Your task to perform on an android device: open sync settings in chrome Image 0: 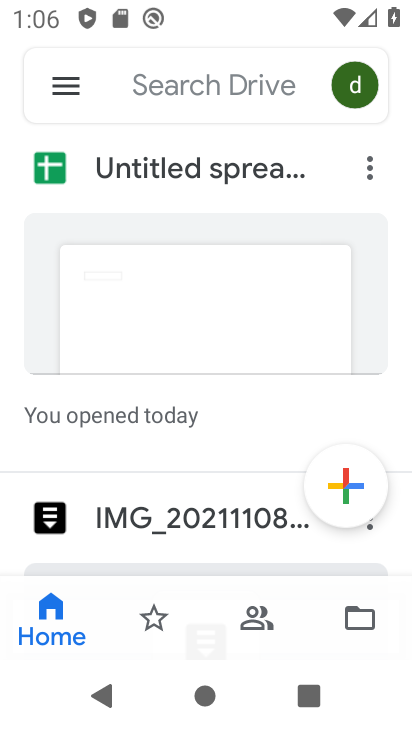
Step 0: press home button
Your task to perform on an android device: open sync settings in chrome Image 1: 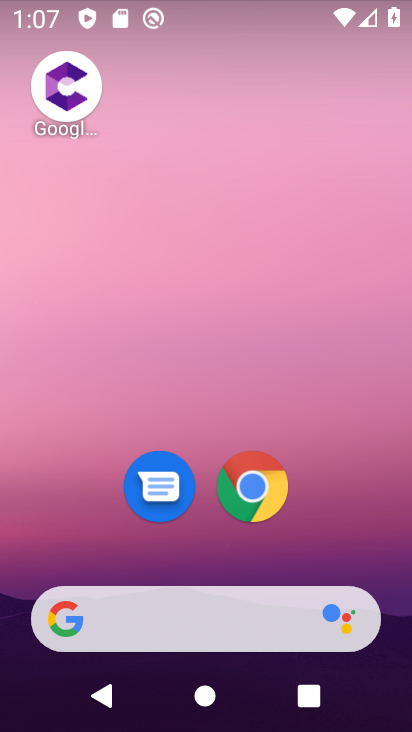
Step 1: click (266, 502)
Your task to perform on an android device: open sync settings in chrome Image 2: 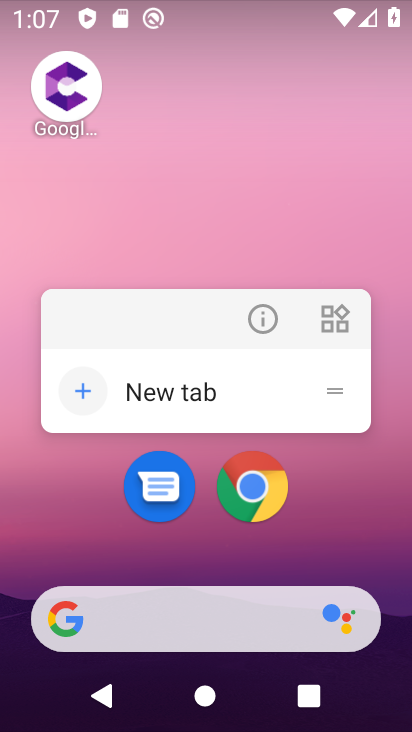
Step 2: click (253, 494)
Your task to perform on an android device: open sync settings in chrome Image 3: 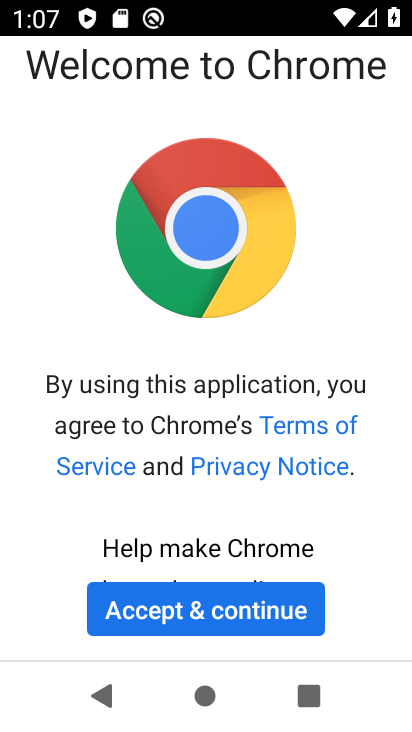
Step 3: click (207, 609)
Your task to perform on an android device: open sync settings in chrome Image 4: 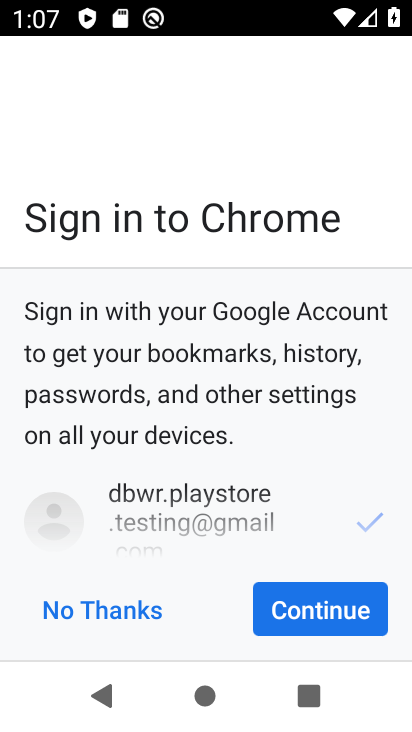
Step 4: click (294, 606)
Your task to perform on an android device: open sync settings in chrome Image 5: 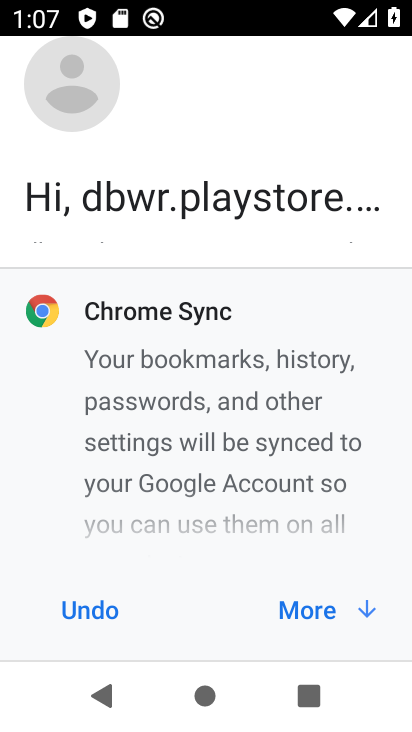
Step 5: click (294, 606)
Your task to perform on an android device: open sync settings in chrome Image 6: 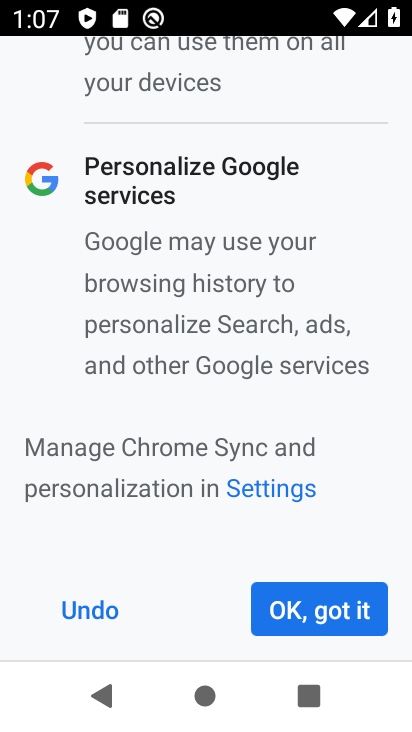
Step 6: click (294, 607)
Your task to perform on an android device: open sync settings in chrome Image 7: 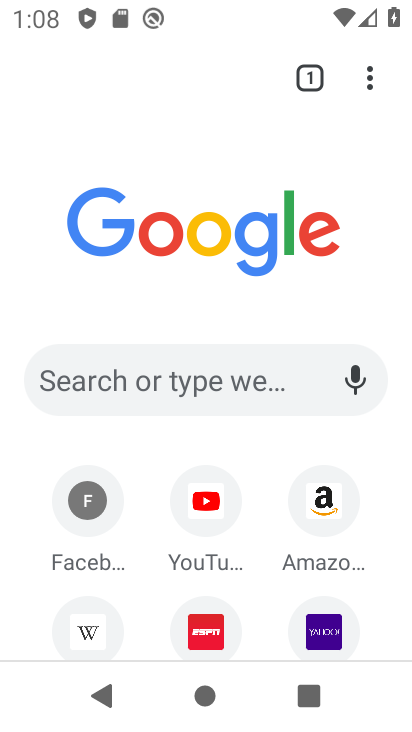
Step 7: click (371, 80)
Your task to perform on an android device: open sync settings in chrome Image 8: 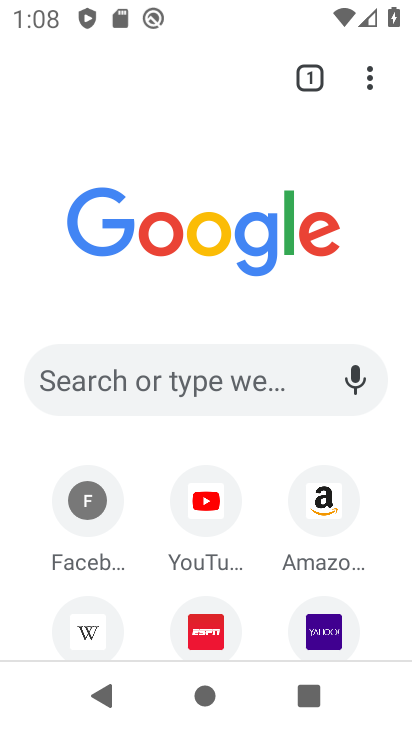
Step 8: click (371, 89)
Your task to perform on an android device: open sync settings in chrome Image 9: 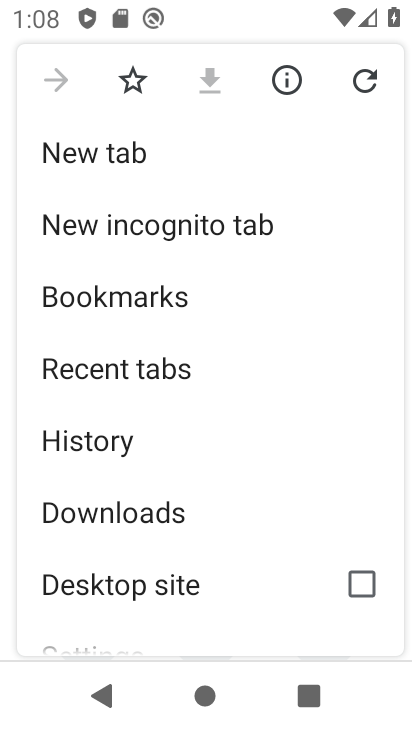
Step 9: drag from (133, 560) to (130, 211)
Your task to perform on an android device: open sync settings in chrome Image 10: 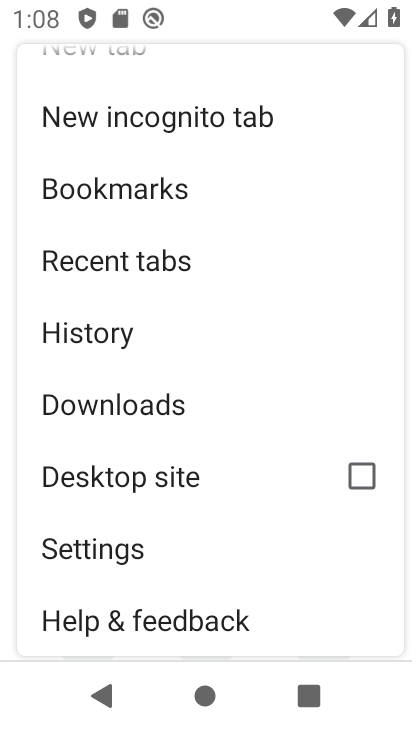
Step 10: click (104, 547)
Your task to perform on an android device: open sync settings in chrome Image 11: 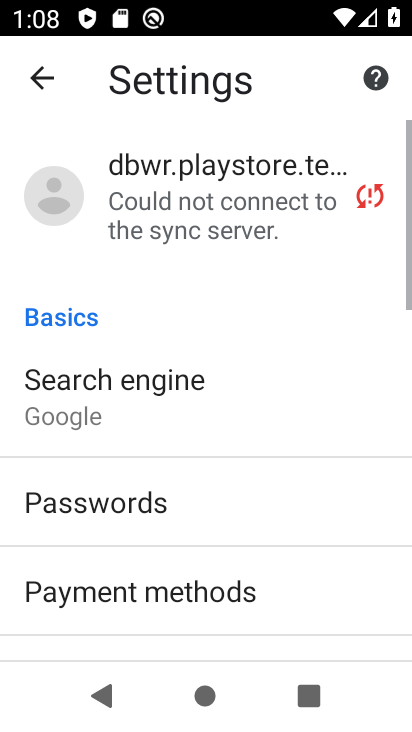
Step 11: drag from (108, 528) to (104, 231)
Your task to perform on an android device: open sync settings in chrome Image 12: 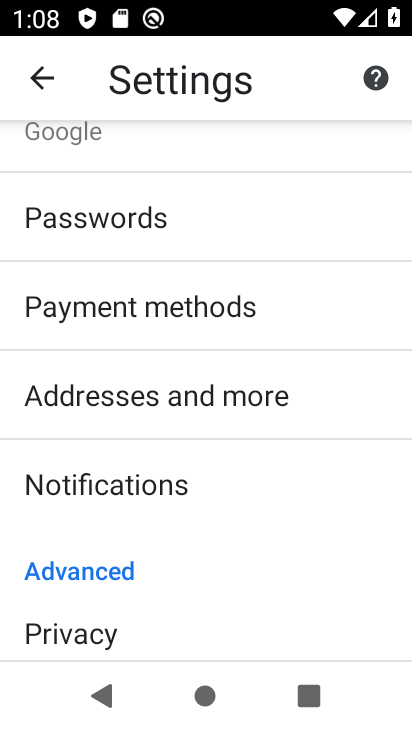
Step 12: drag from (138, 559) to (135, 226)
Your task to perform on an android device: open sync settings in chrome Image 13: 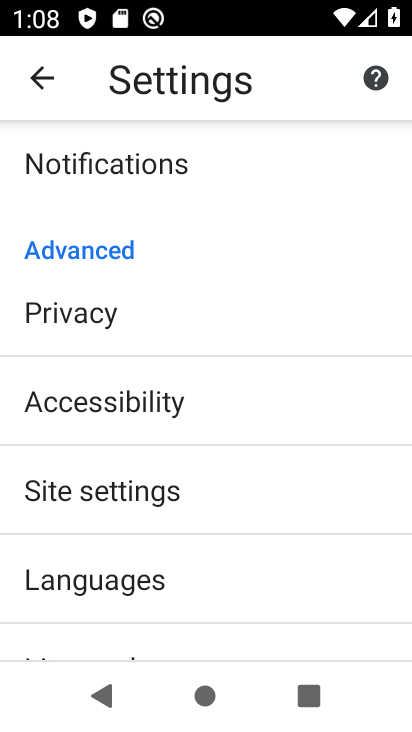
Step 13: drag from (115, 572) to (127, 210)
Your task to perform on an android device: open sync settings in chrome Image 14: 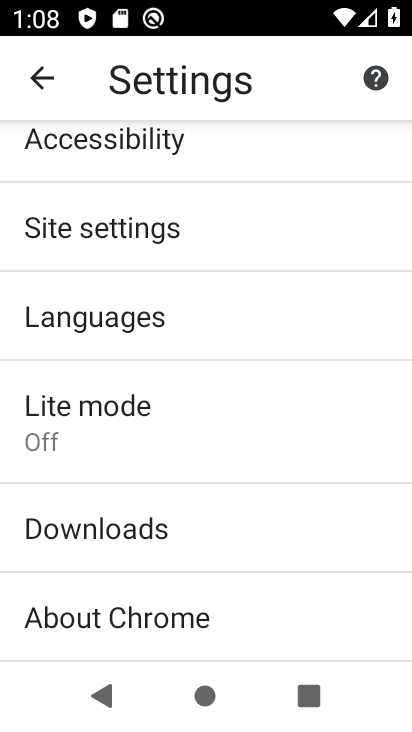
Step 14: drag from (131, 214) to (116, 706)
Your task to perform on an android device: open sync settings in chrome Image 15: 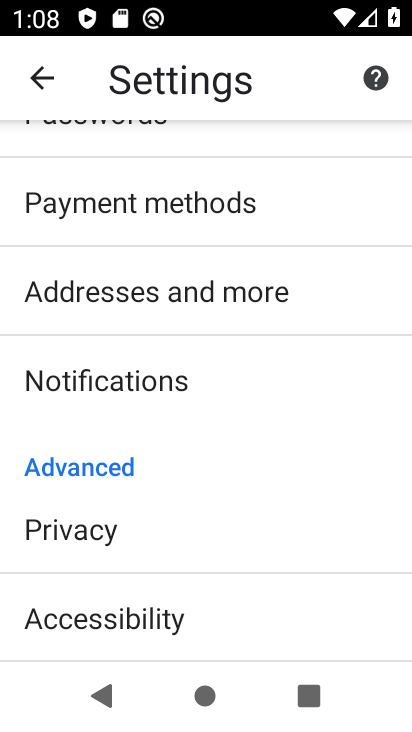
Step 15: drag from (91, 373) to (89, 728)
Your task to perform on an android device: open sync settings in chrome Image 16: 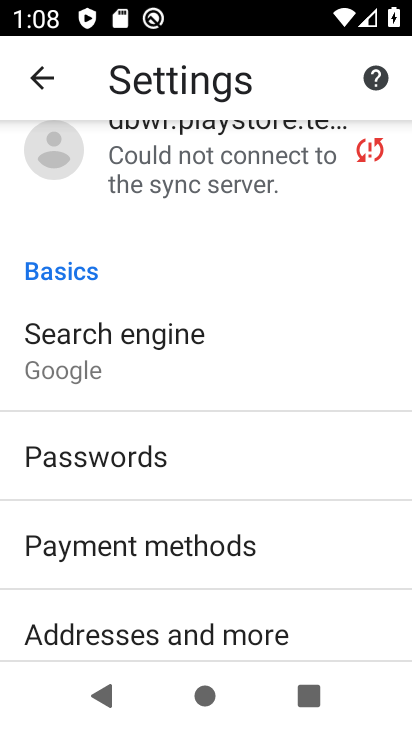
Step 16: drag from (154, 341) to (157, 631)
Your task to perform on an android device: open sync settings in chrome Image 17: 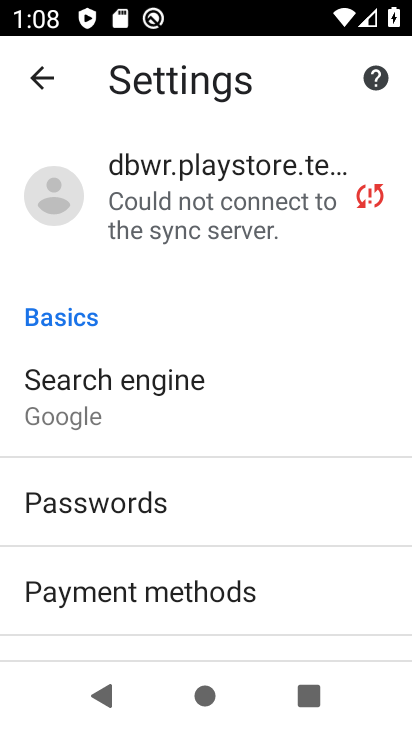
Step 17: click (161, 215)
Your task to perform on an android device: open sync settings in chrome Image 18: 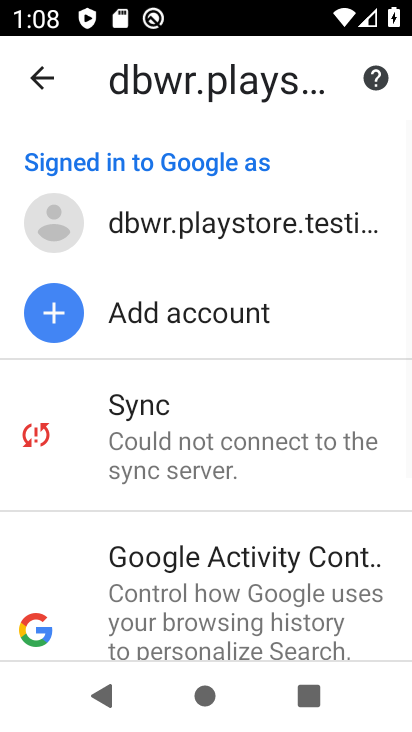
Step 18: click (178, 454)
Your task to perform on an android device: open sync settings in chrome Image 19: 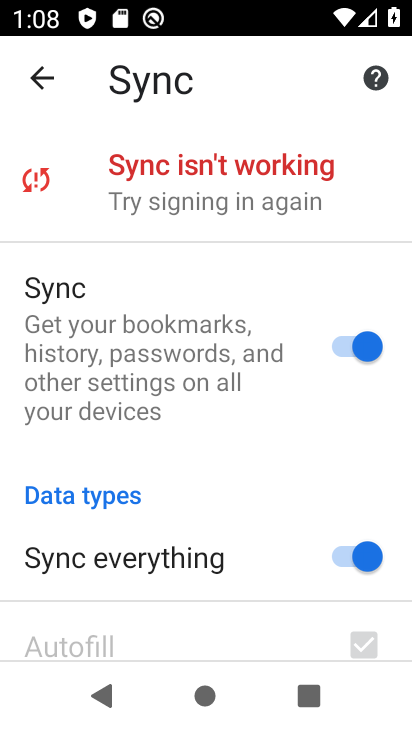
Step 19: task complete